Your task to perform on an android device: turn on the 12-hour format for clock Image 0: 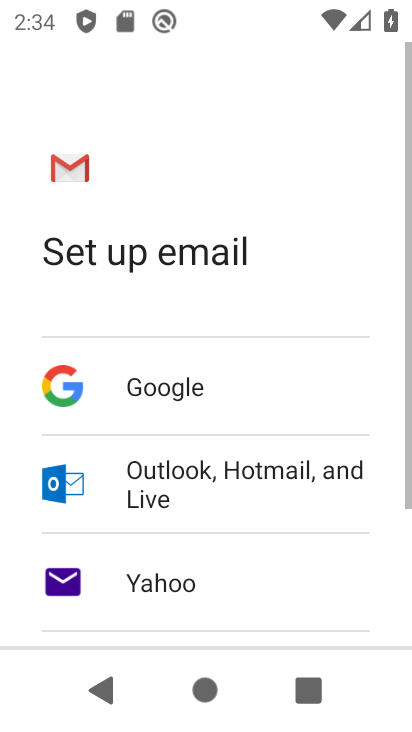
Step 0: press home button
Your task to perform on an android device: turn on the 12-hour format for clock Image 1: 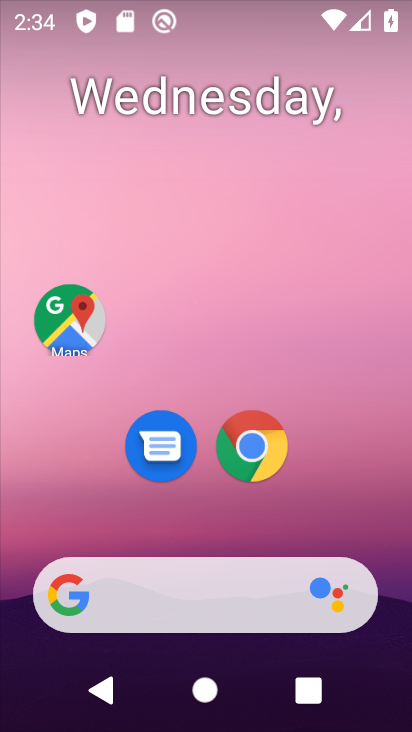
Step 1: drag from (332, 513) to (373, 26)
Your task to perform on an android device: turn on the 12-hour format for clock Image 2: 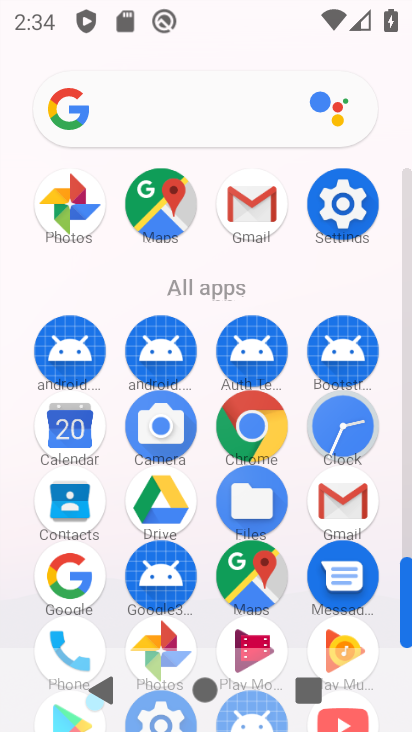
Step 2: click (345, 426)
Your task to perform on an android device: turn on the 12-hour format for clock Image 3: 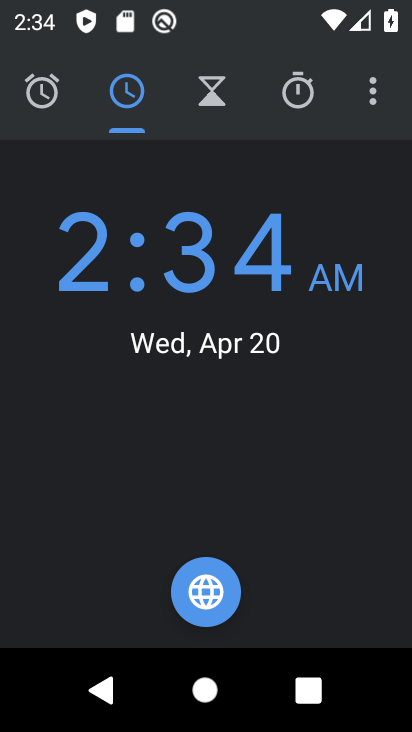
Step 3: click (372, 91)
Your task to perform on an android device: turn on the 12-hour format for clock Image 4: 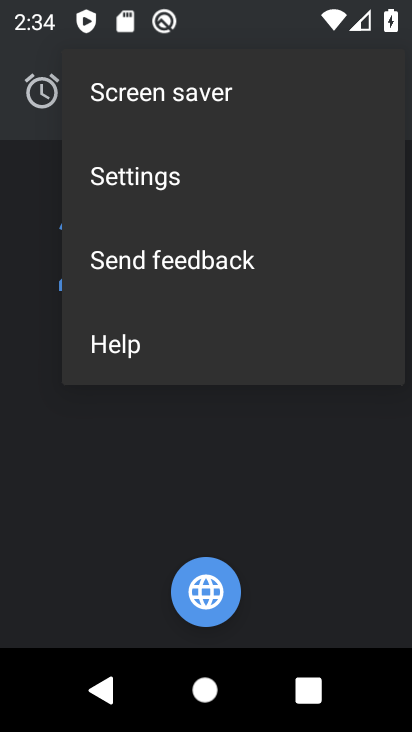
Step 4: click (183, 182)
Your task to perform on an android device: turn on the 12-hour format for clock Image 5: 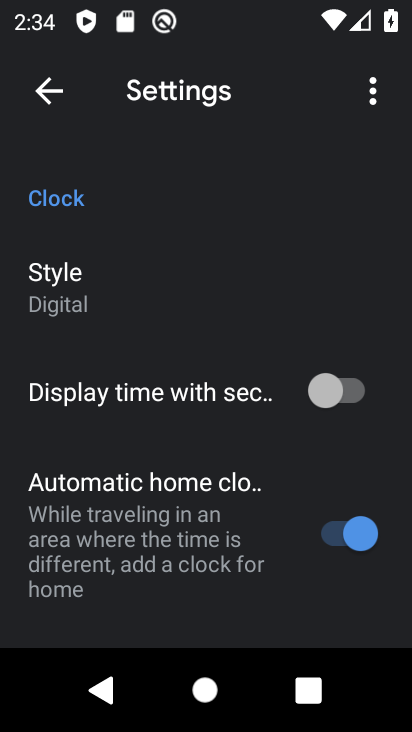
Step 5: drag from (155, 428) to (182, 280)
Your task to perform on an android device: turn on the 12-hour format for clock Image 6: 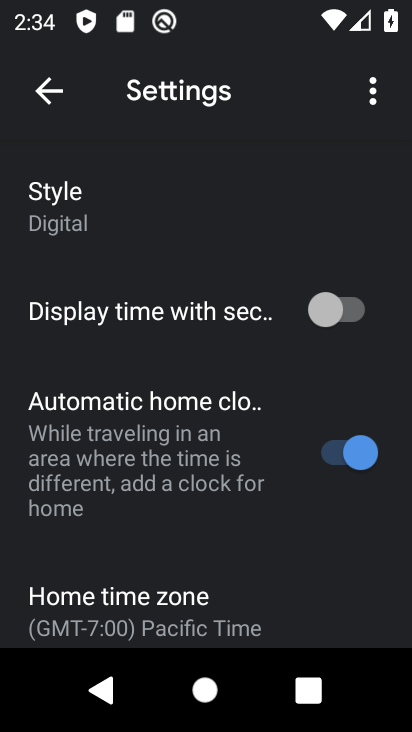
Step 6: drag from (173, 530) to (214, 337)
Your task to perform on an android device: turn on the 12-hour format for clock Image 7: 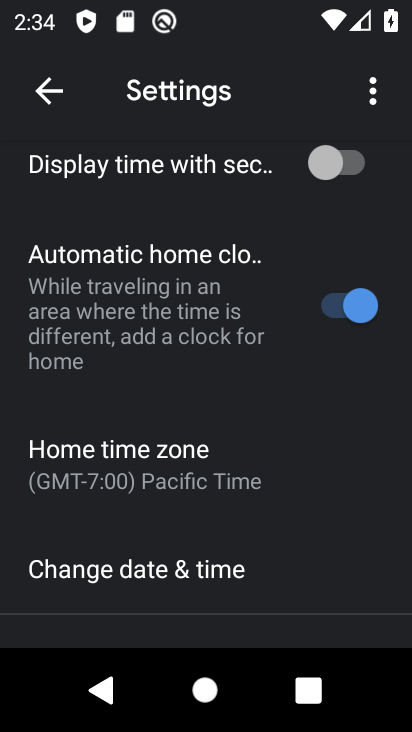
Step 7: drag from (172, 520) to (202, 365)
Your task to perform on an android device: turn on the 12-hour format for clock Image 8: 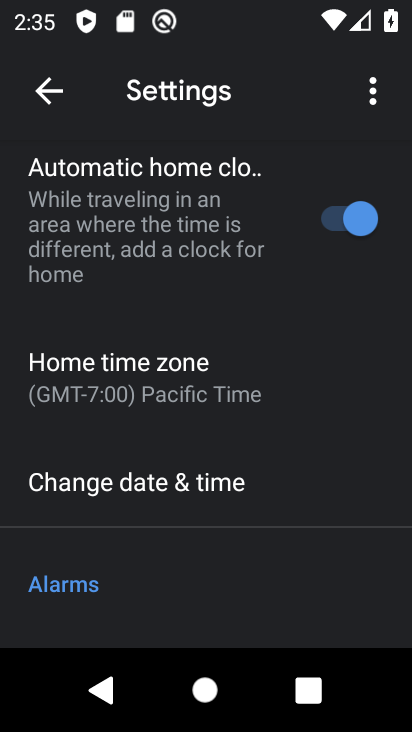
Step 8: click (172, 484)
Your task to perform on an android device: turn on the 12-hour format for clock Image 9: 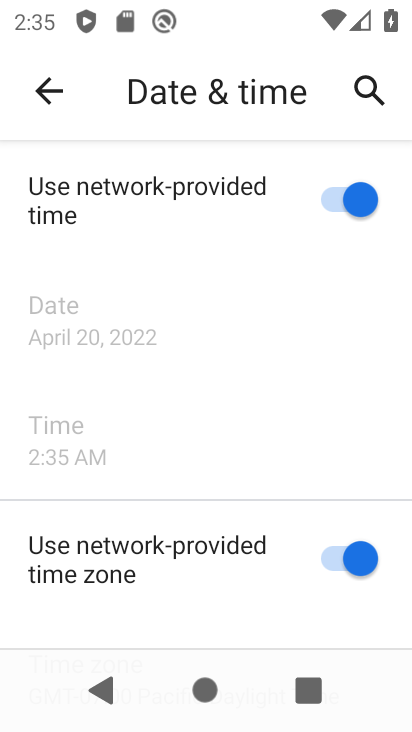
Step 9: task complete